Your task to perform on an android device: turn on location history Image 0: 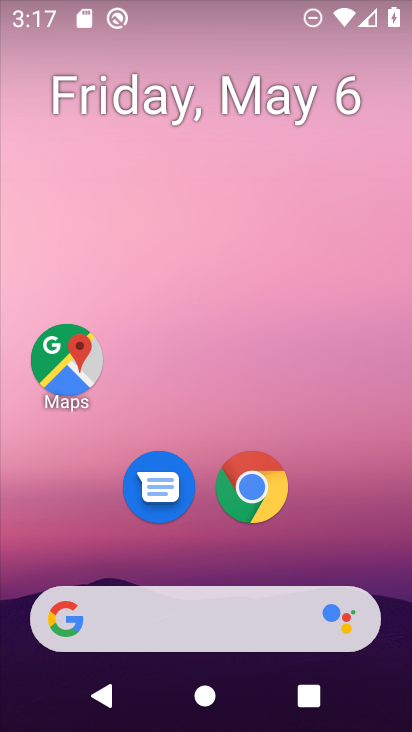
Step 0: drag from (327, 576) to (384, 47)
Your task to perform on an android device: turn on location history Image 1: 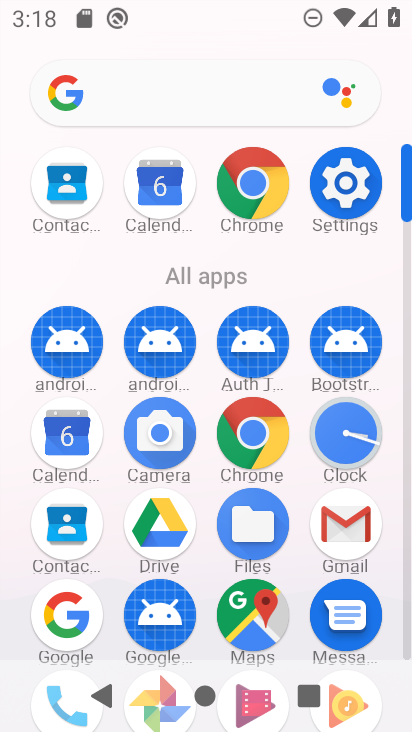
Step 1: click (362, 185)
Your task to perform on an android device: turn on location history Image 2: 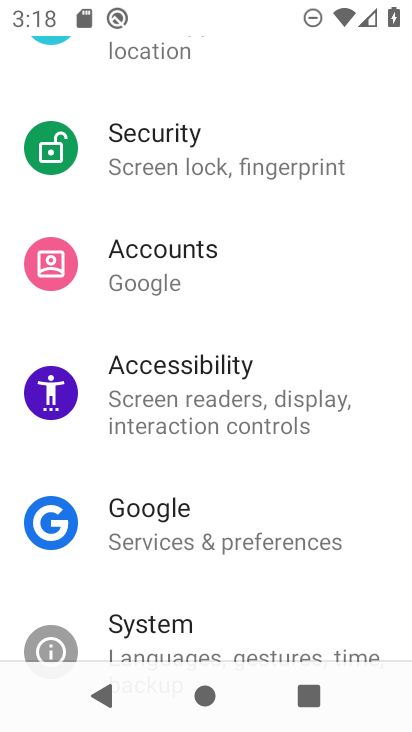
Step 2: drag from (243, 555) to (234, 697)
Your task to perform on an android device: turn on location history Image 3: 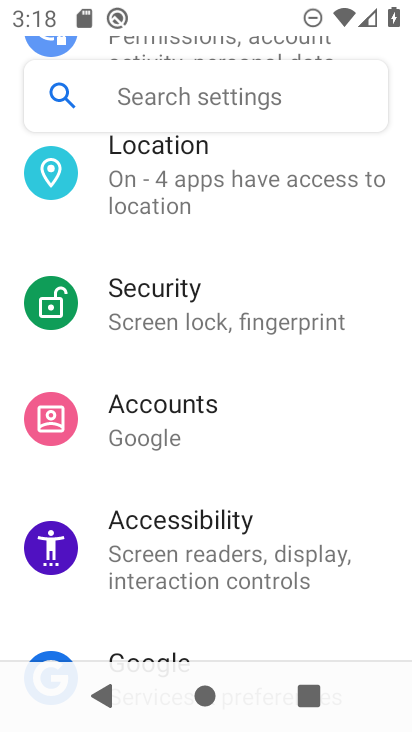
Step 3: click (238, 189)
Your task to perform on an android device: turn on location history Image 4: 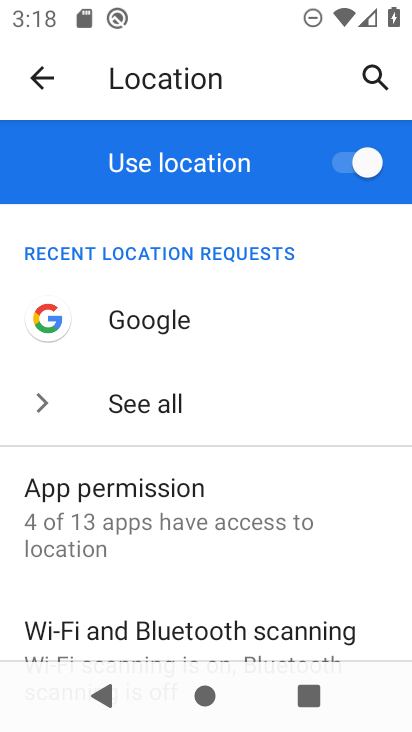
Step 4: drag from (246, 566) to (251, 297)
Your task to perform on an android device: turn on location history Image 5: 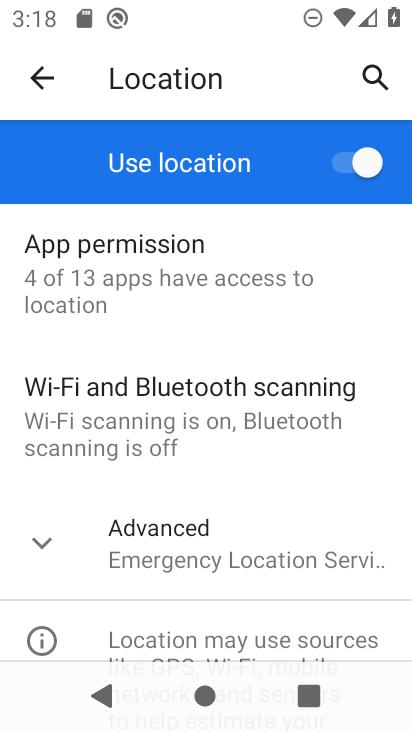
Step 5: click (188, 530)
Your task to perform on an android device: turn on location history Image 6: 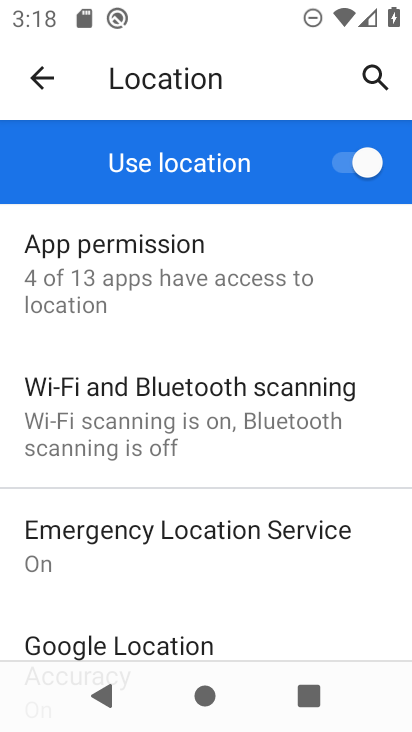
Step 6: drag from (241, 619) to (228, 420)
Your task to perform on an android device: turn on location history Image 7: 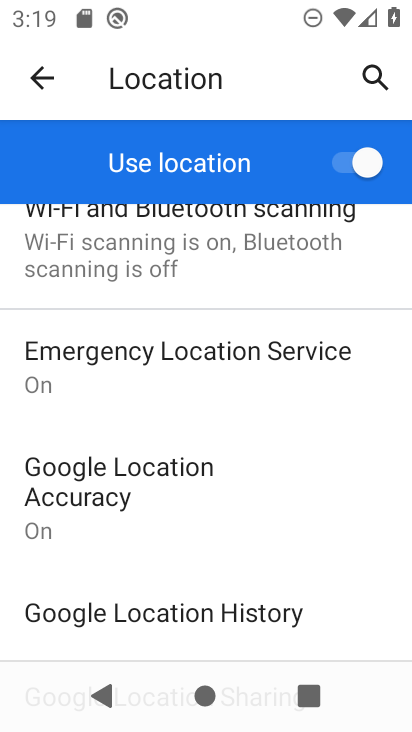
Step 7: click (214, 624)
Your task to perform on an android device: turn on location history Image 8: 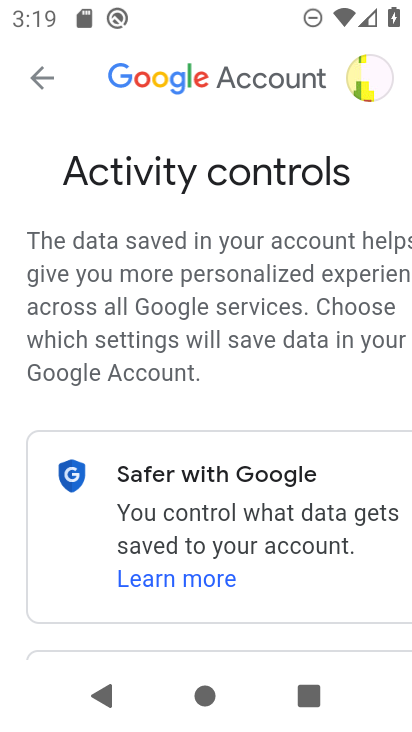
Step 8: drag from (311, 605) to (325, 167)
Your task to perform on an android device: turn on location history Image 9: 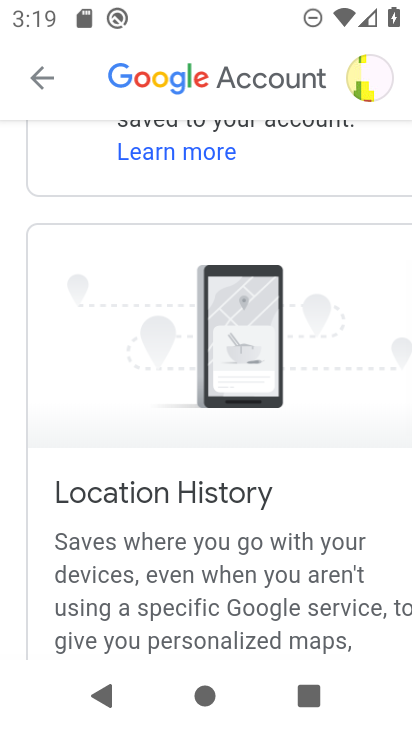
Step 9: drag from (324, 590) to (330, 224)
Your task to perform on an android device: turn on location history Image 10: 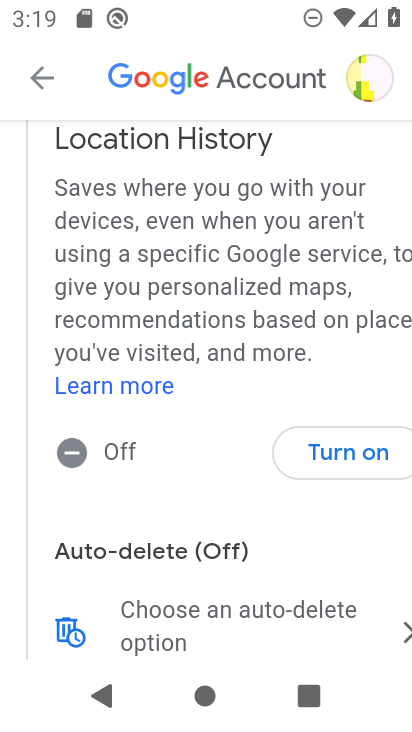
Step 10: click (323, 462)
Your task to perform on an android device: turn on location history Image 11: 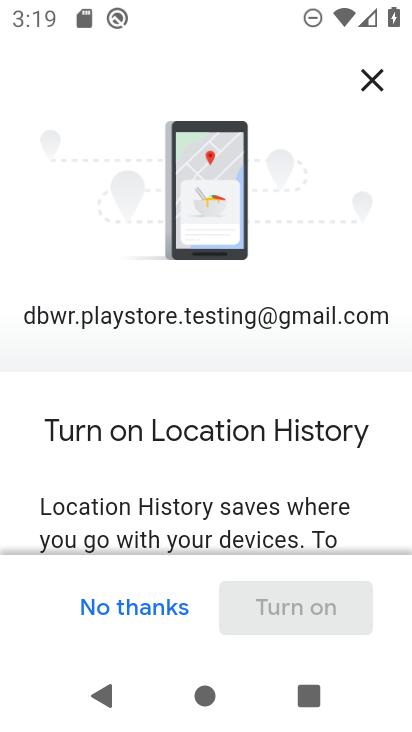
Step 11: drag from (285, 535) to (326, 70)
Your task to perform on an android device: turn on location history Image 12: 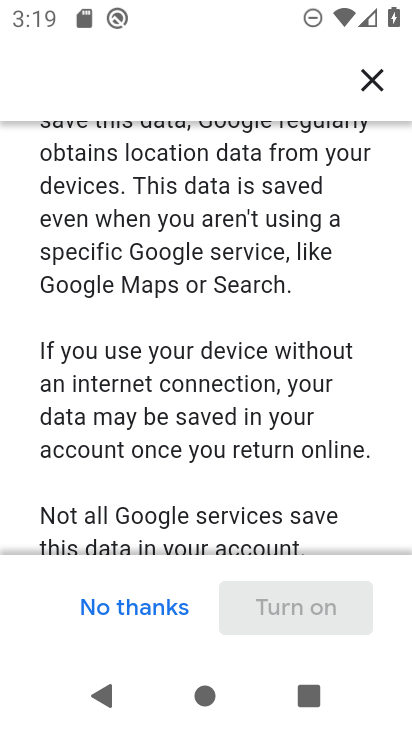
Step 12: drag from (315, 510) to (263, 129)
Your task to perform on an android device: turn on location history Image 13: 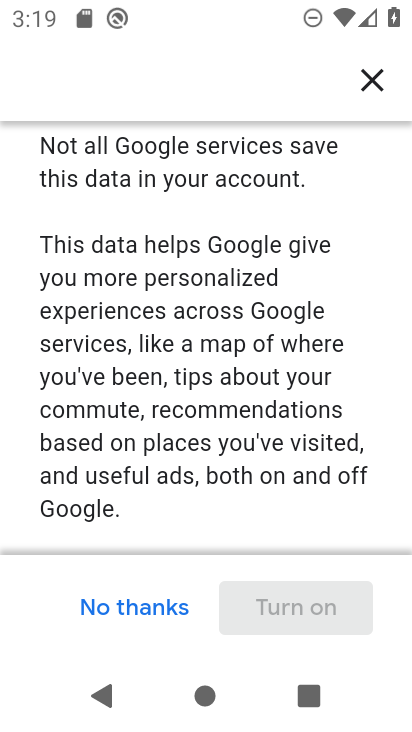
Step 13: drag from (258, 507) to (254, 101)
Your task to perform on an android device: turn on location history Image 14: 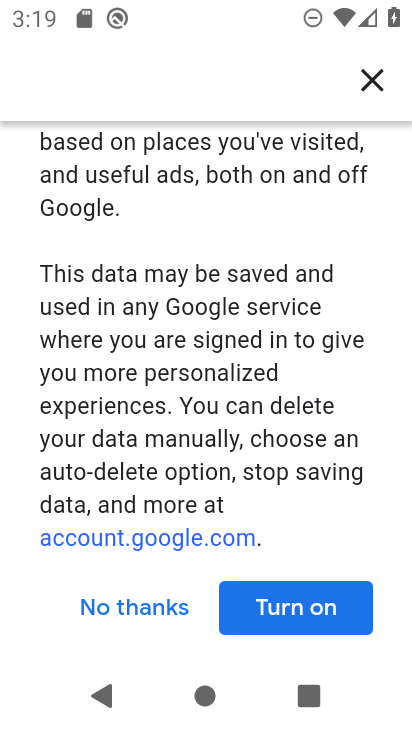
Step 14: click (275, 603)
Your task to perform on an android device: turn on location history Image 15: 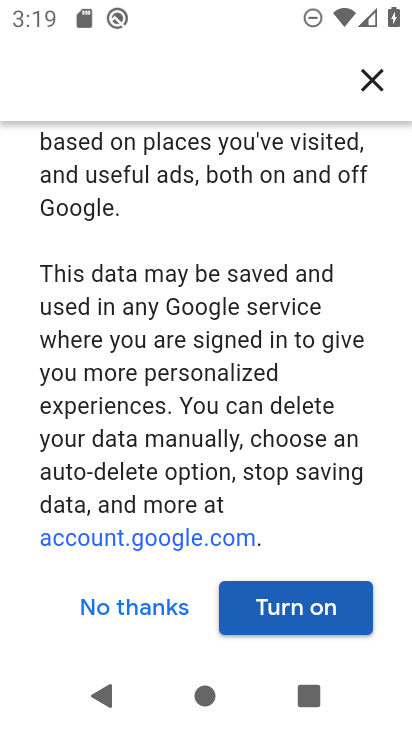
Step 15: click (296, 597)
Your task to perform on an android device: turn on location history Image 16: 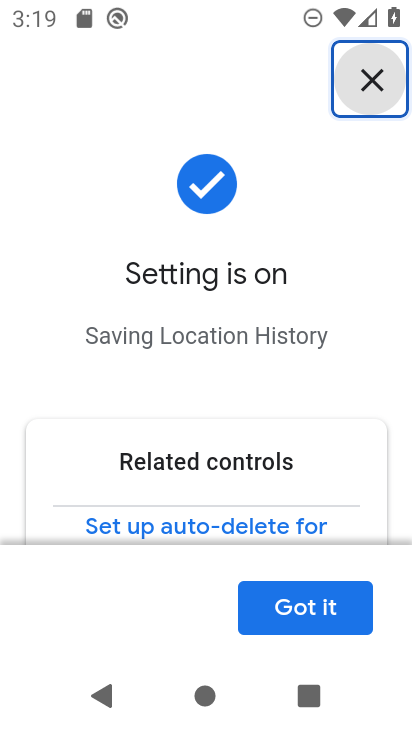
Step 16: click (319, 597)
Your task to perform on an android device: turn on location history Image 17: 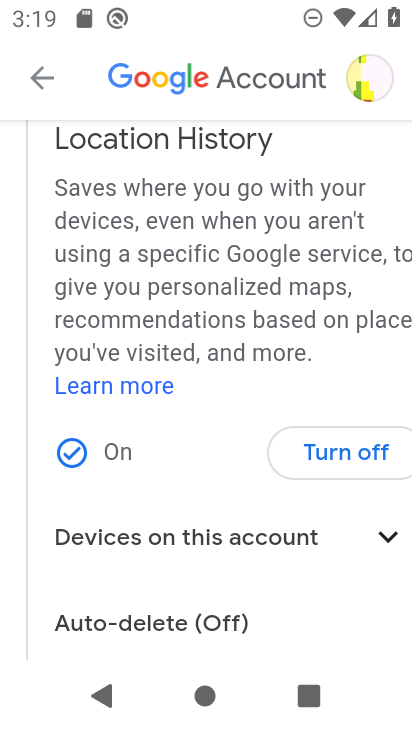
Step 17: task complete